Your task to perform on an android device: turn off notifications in google photos Image 0: 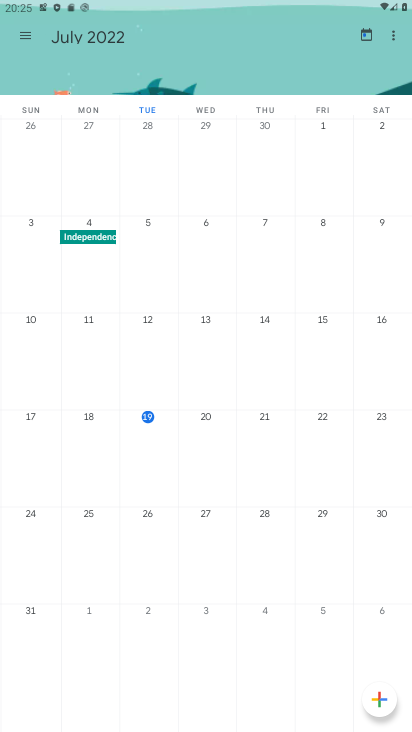
Step 0: press home button
Your task to perform on an android device: turn off notifications in google photos Image 1: 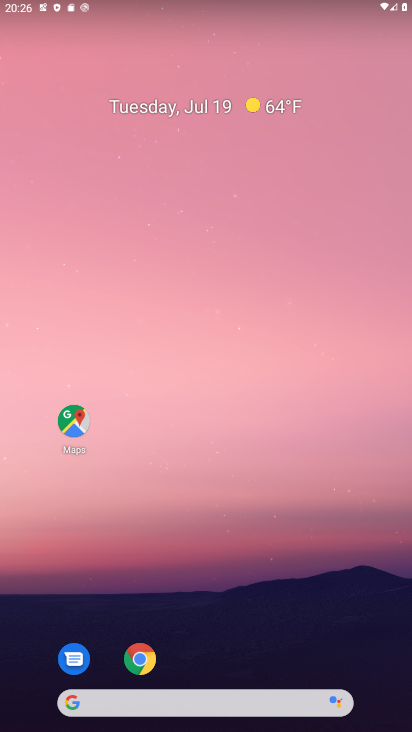
Step 1: drag from (201, 617) to (199, 33)
Your task to perform on an android device: turn off notifications in google photos Image 2: 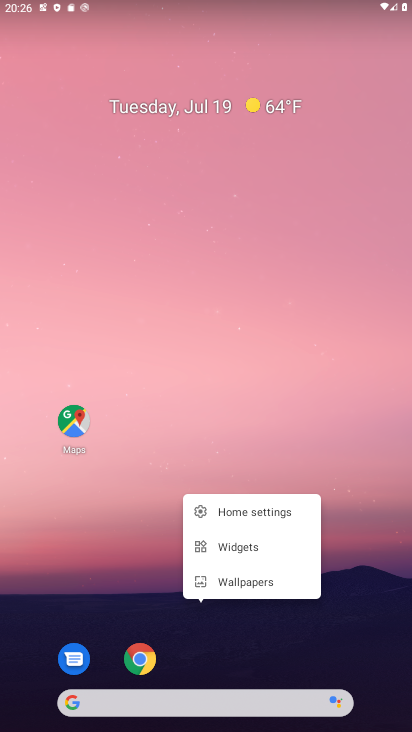
Step 2: drag from (241, 680) to (238, 23)
Your task to perform on an android device: turn off notifications in google photos Image 3: 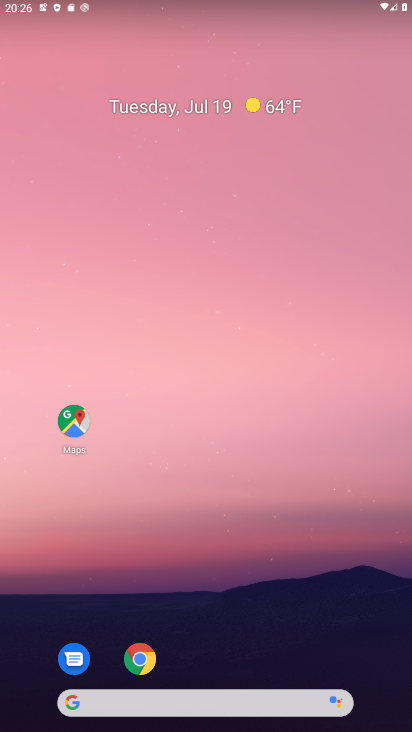
Step 3: drag from (330, 669) to (303, 90)
Your task to perform on an android device: turn off notifications in google photos Image 4: 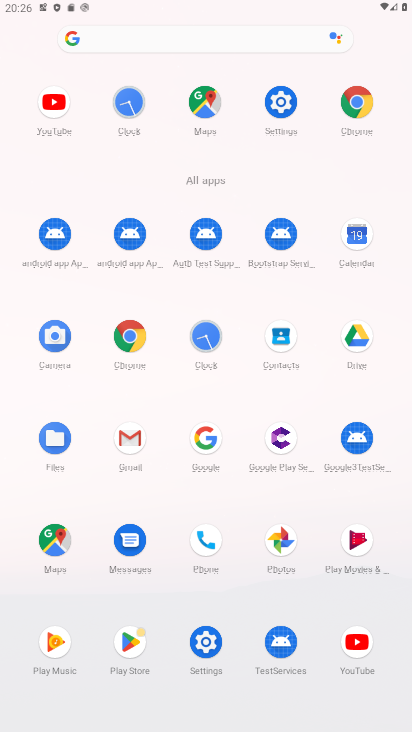
Step 4: click (287, 120)
Your task to perform on an android device: turn off notifications in google photos Image 5: 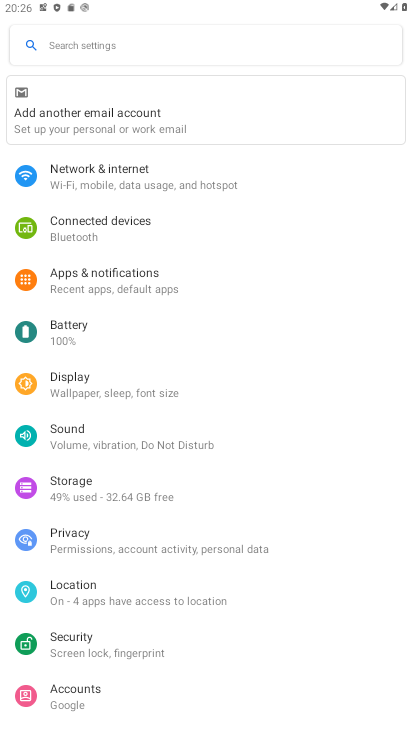
Step 5: click (128, 296)
Your task to perform on an android device: turn off notifications in google photos Image 6: 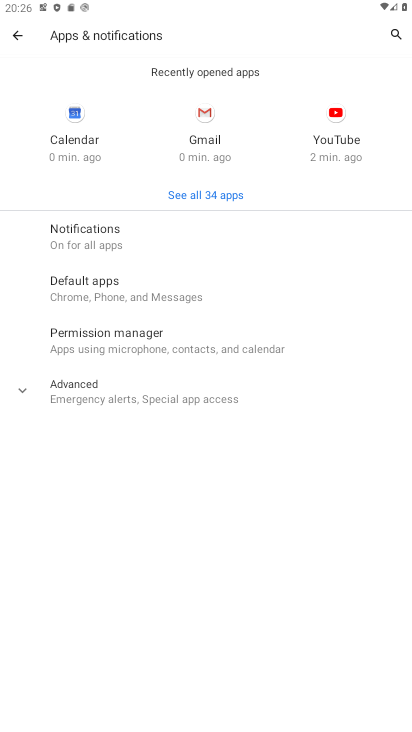
Step 6: click (212, 196)
Your task to perform on an android device: turn off notifications in google photos Image 7: 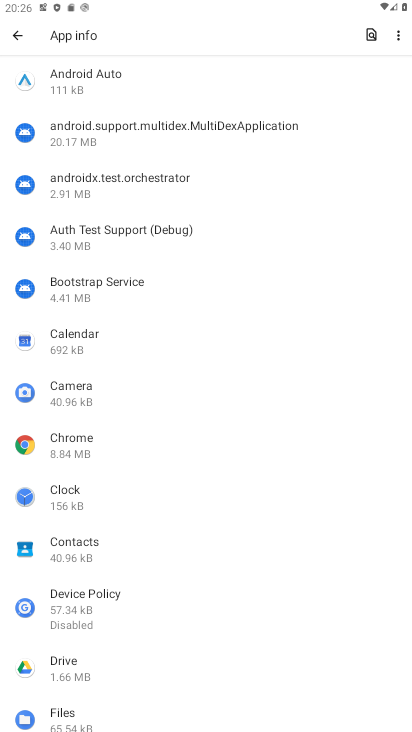
Step 7: drag from (212, 196) to (259, 367)
Your task to perform on an android device: turn off notifications in google photos Image 8: 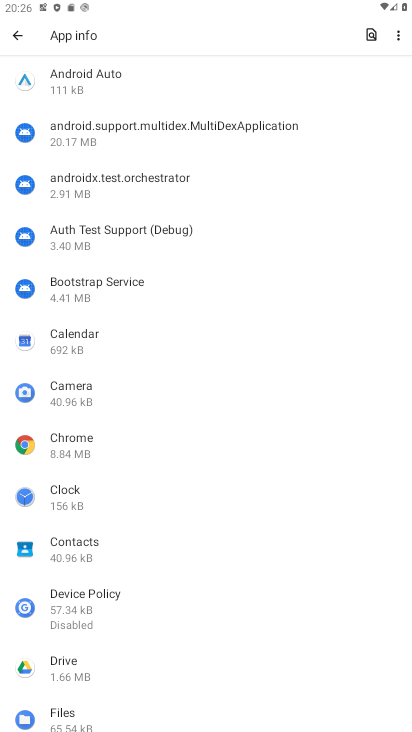
Step 8: drag from (259, 367) to (230, 38)
Your task to perform on an android device: turn off notifications in google photos Image 9: 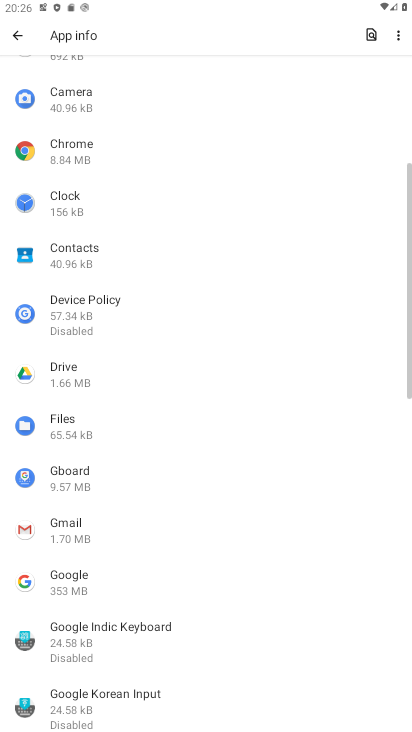
Step 9: drag from (172, 678) to (165, 371)
Your task to perform on an android device: turn off notifications in google photos Image 10: 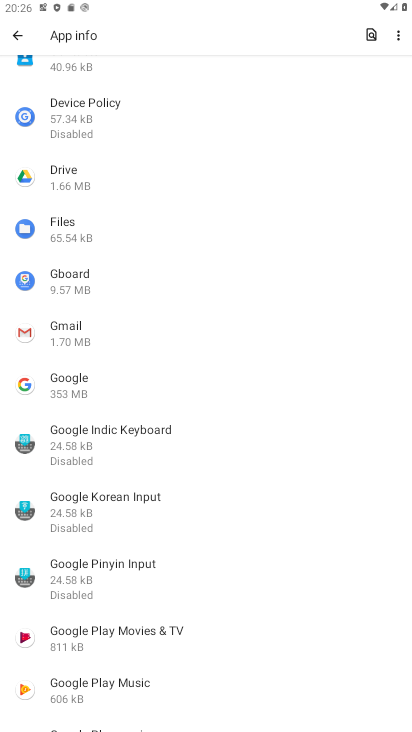
Step 10: drag from (192, 585) to (173, 359)
Your task to perform on an android device: turn off notifications in google photos Image 11: 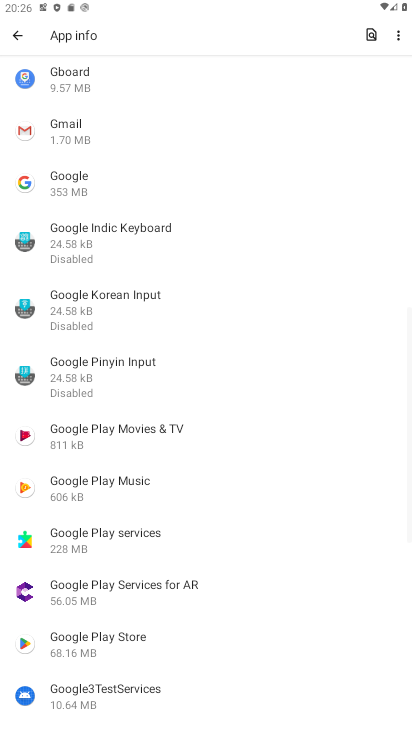
Step 11: drag from (171, 650) to (177, 214)
Your task to perform on an android device: turn off notifications in google photos Image 12: 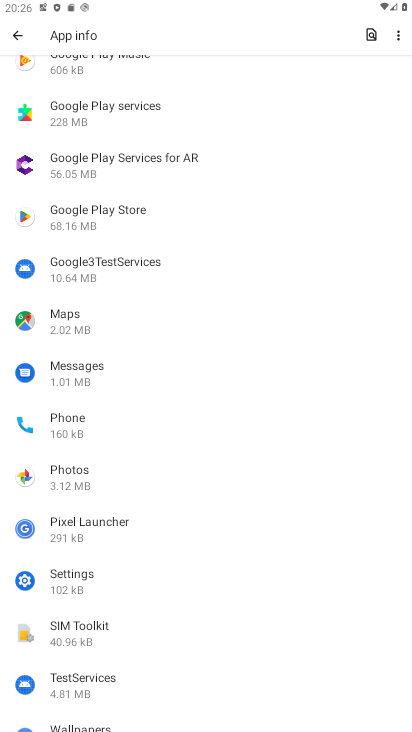
Step 12: click (70, 483)
Your task to perform on an android device: turn off notifications in google photos Image 13: 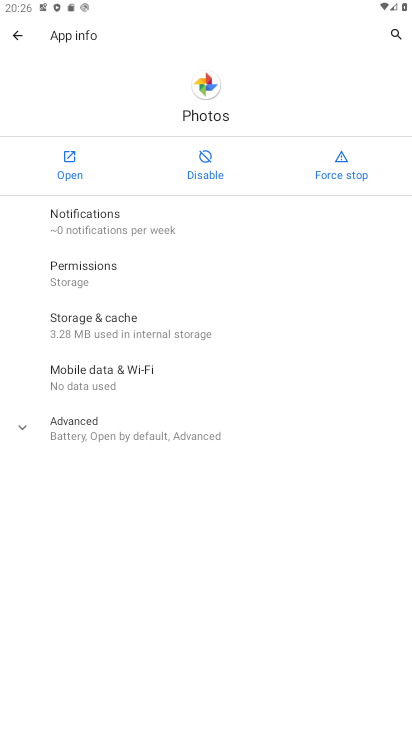
Step 13: click (118, 224)
Your task to perform on an android device: turn off notifications in google photos Image 14: 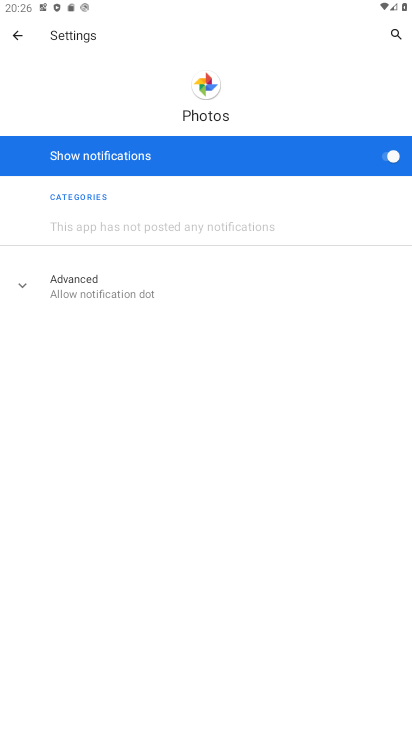
Step 14: click (398, 160)
Your task to perform on an android device: turn off notifications in google photos Image 15: 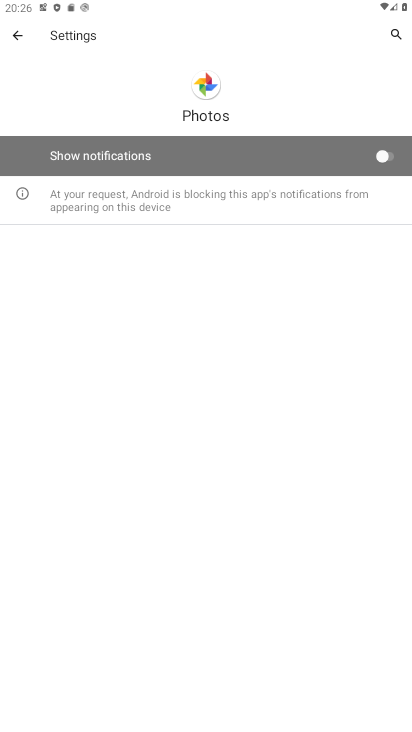
Step 15: task complete